Your task to perform on an android device: Empty the shopping cart on ebay.com. Search for "razer blade" on ebay.com, select the first entry, and add it to the cart. Image 0: 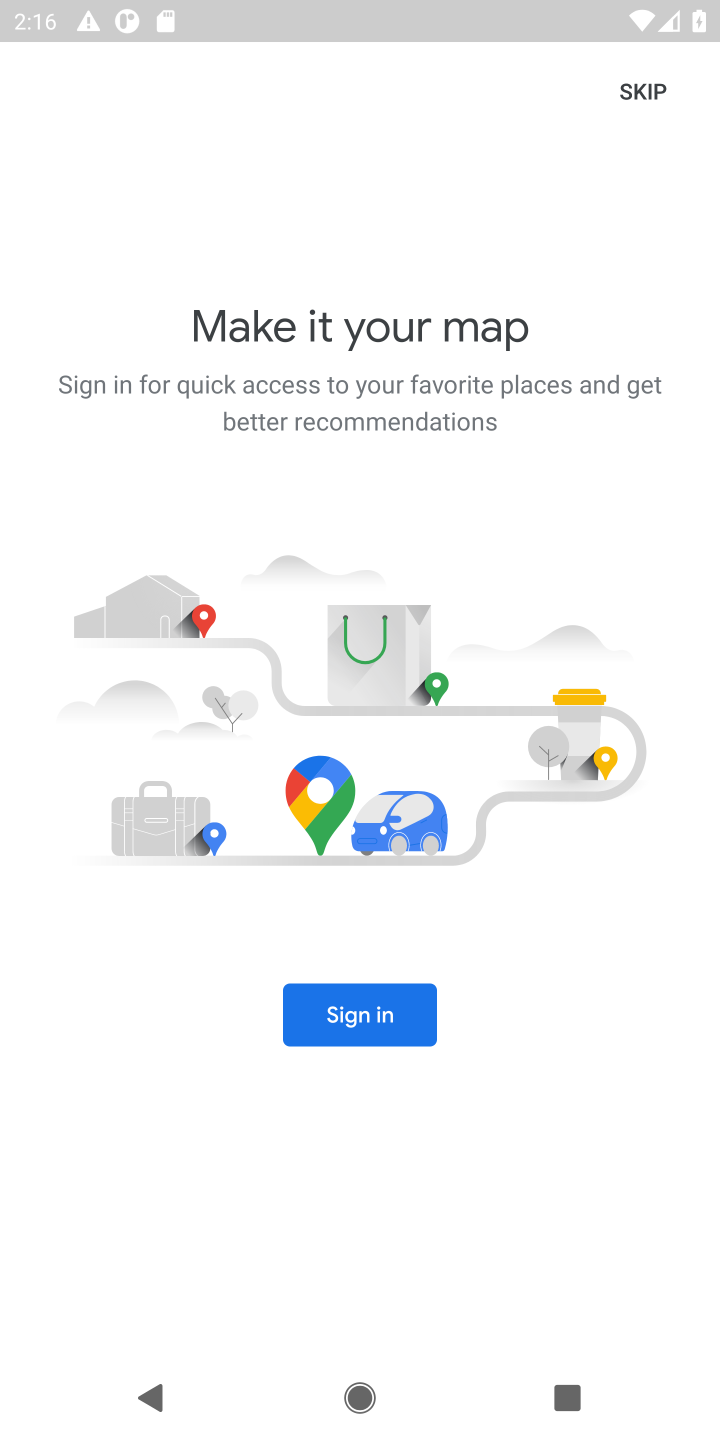
Step 0: press home button
Your task to perform on an android device: Empty the shopping cart on ebay.com. Search for "razer blade" on ebay.com, select the first entry, and add it to the cart. Image 1: 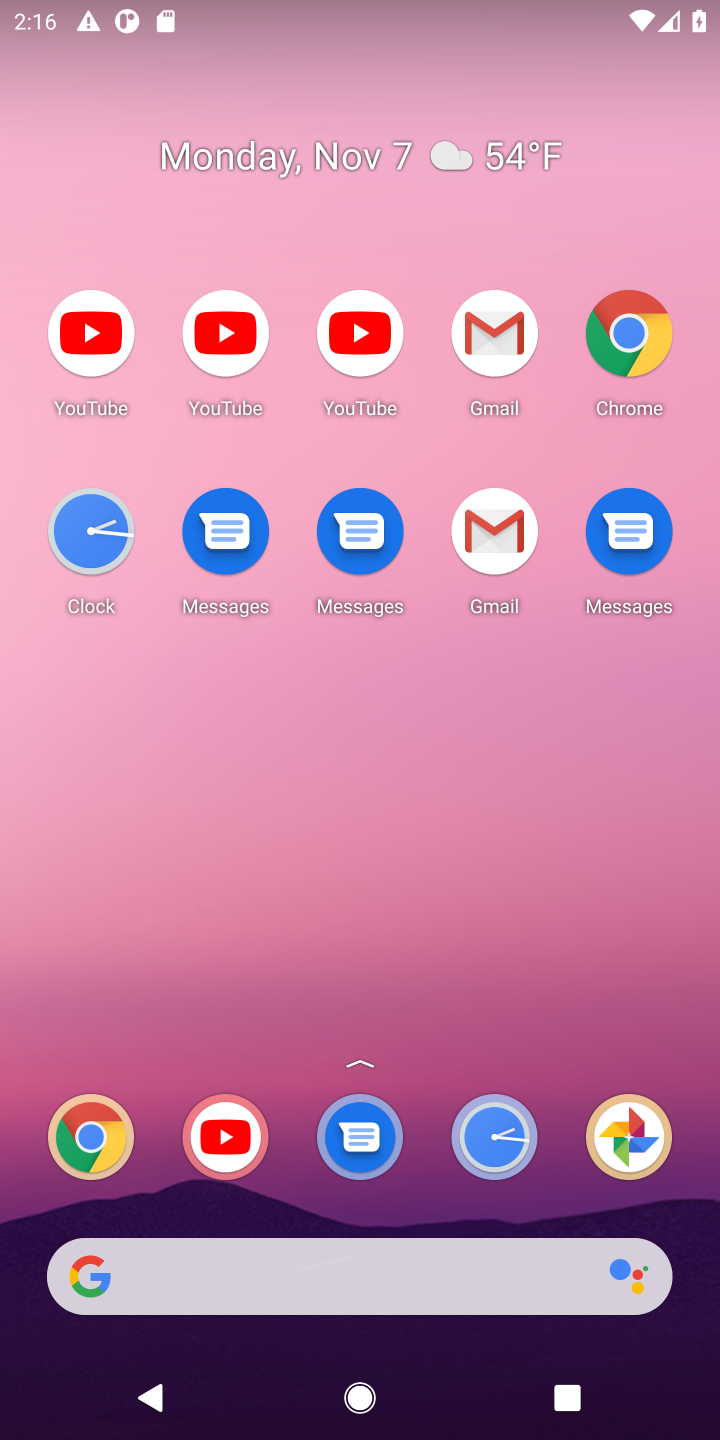
Step 1: drag from (417, 1169) to (369, 365)
Your task to perform on an android device: Empty the shopping cart on ebay.com. Search for "razer blade" on ebay.com, select the first entry, and add it to the cart. Image 2: 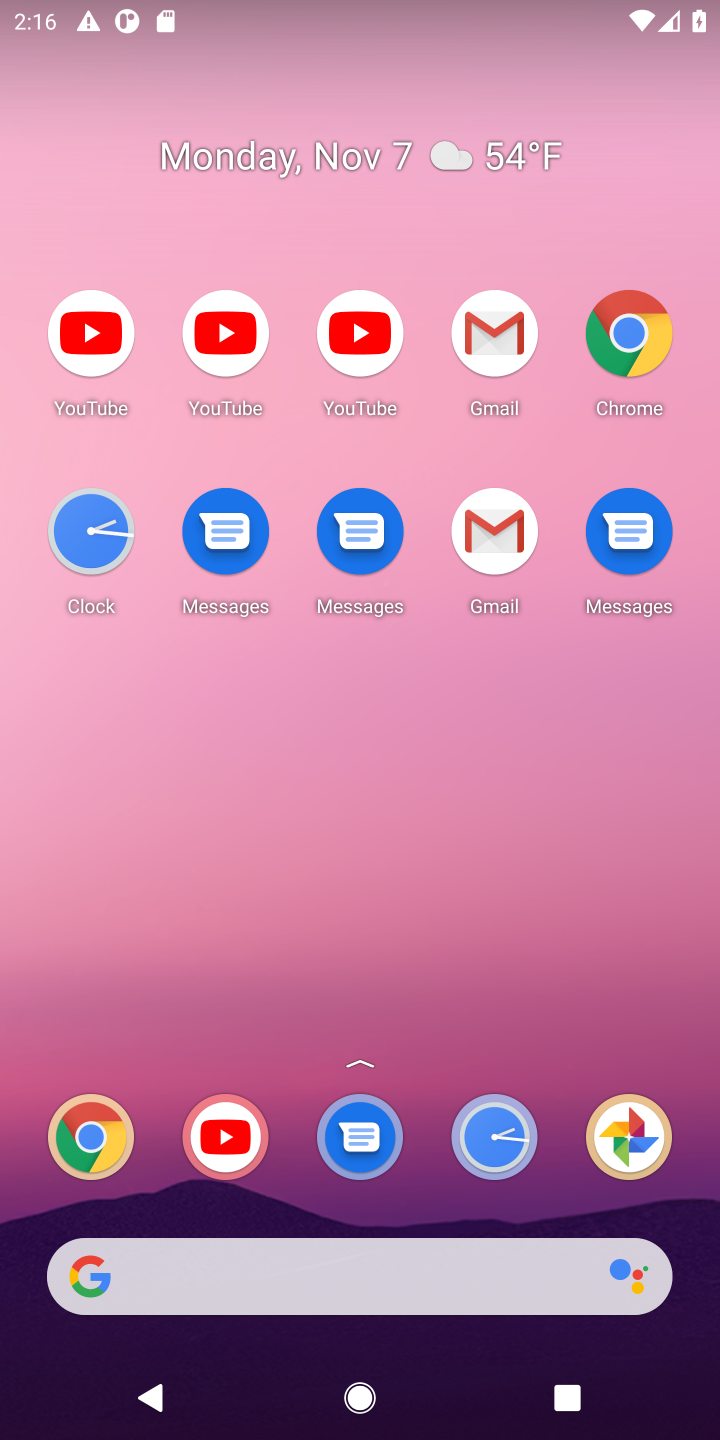
Step 2: drag from (416, 1211) to (394, 443)
Your task to perform on an android device: Empty the shopping cart on ebay.com. Search for "razer blade" on ebay.com, select the first entry, and add it to the cart. Image 3: 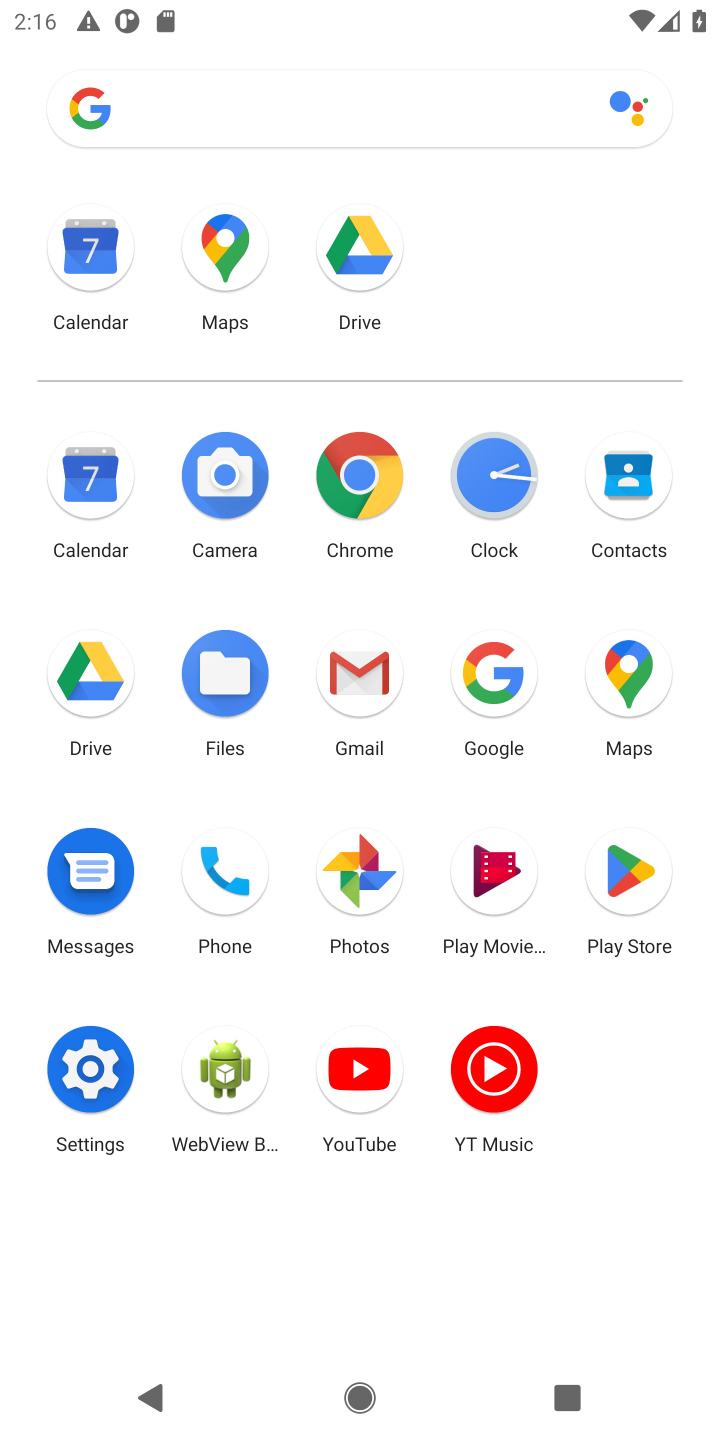
Step 3: click (365, 477)
Your task to perform on an android device: Empty the shopping cart on ebay.com. Search for "razer blade" on ebay.com, select the first entry, and add it to the cart. Image 4: 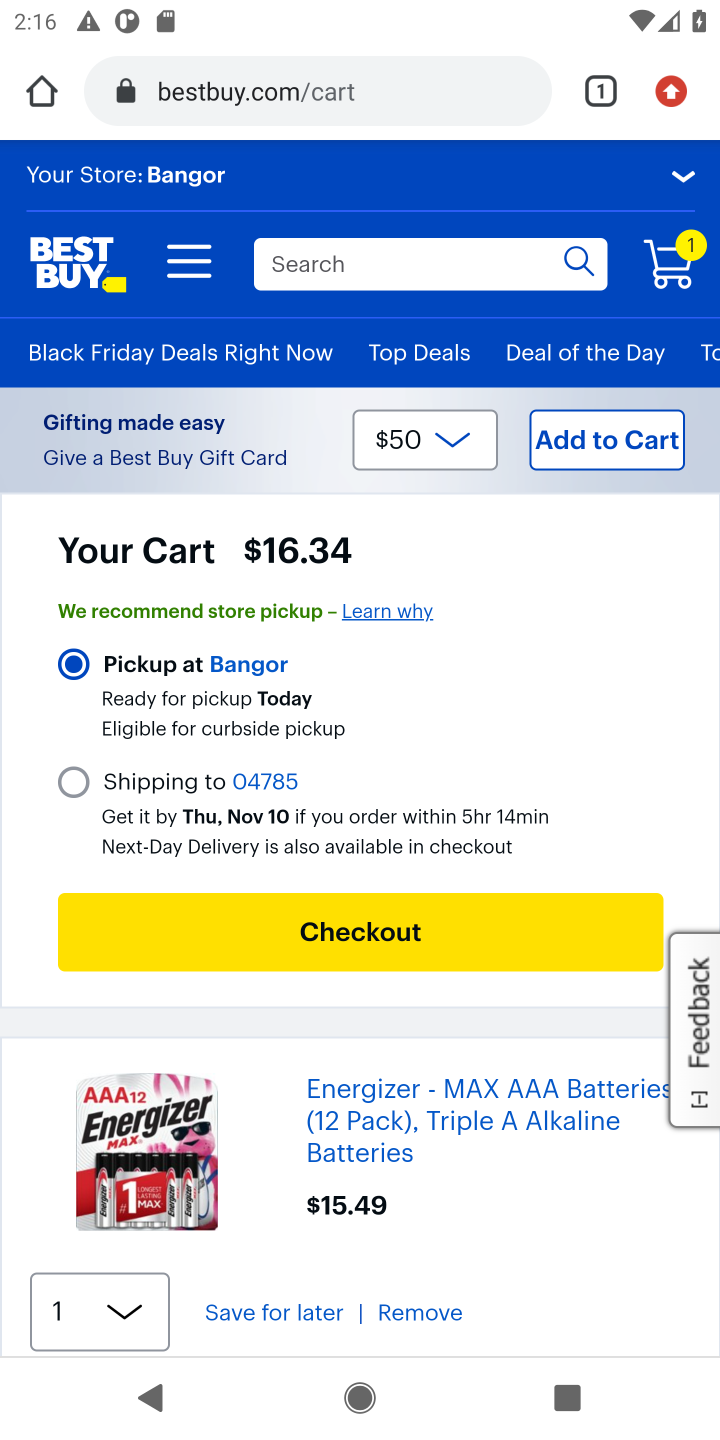
Step 4: click (379, 80)
Your task to perform on an android device: Empty the shopping cart on ebay.com. Search for "razer blade" on ebay.com, select the first entry, and add it to the cart. Image 5: 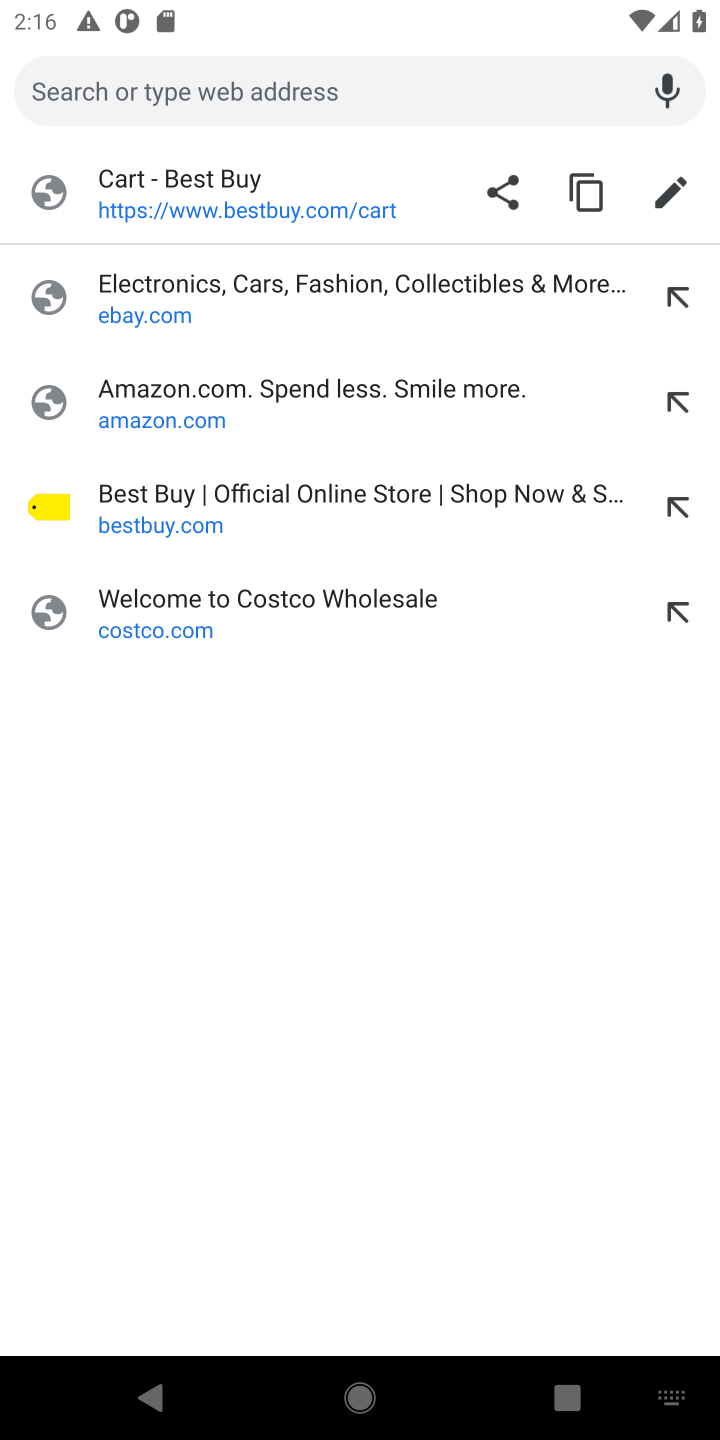
Step 5: type "ebay.com"
Your task to perform on an android device: Empty the shopping cart on ebay.com. Search for "razer blade" on ebay.com, select the first entry, and add it to the cart. Image 6: 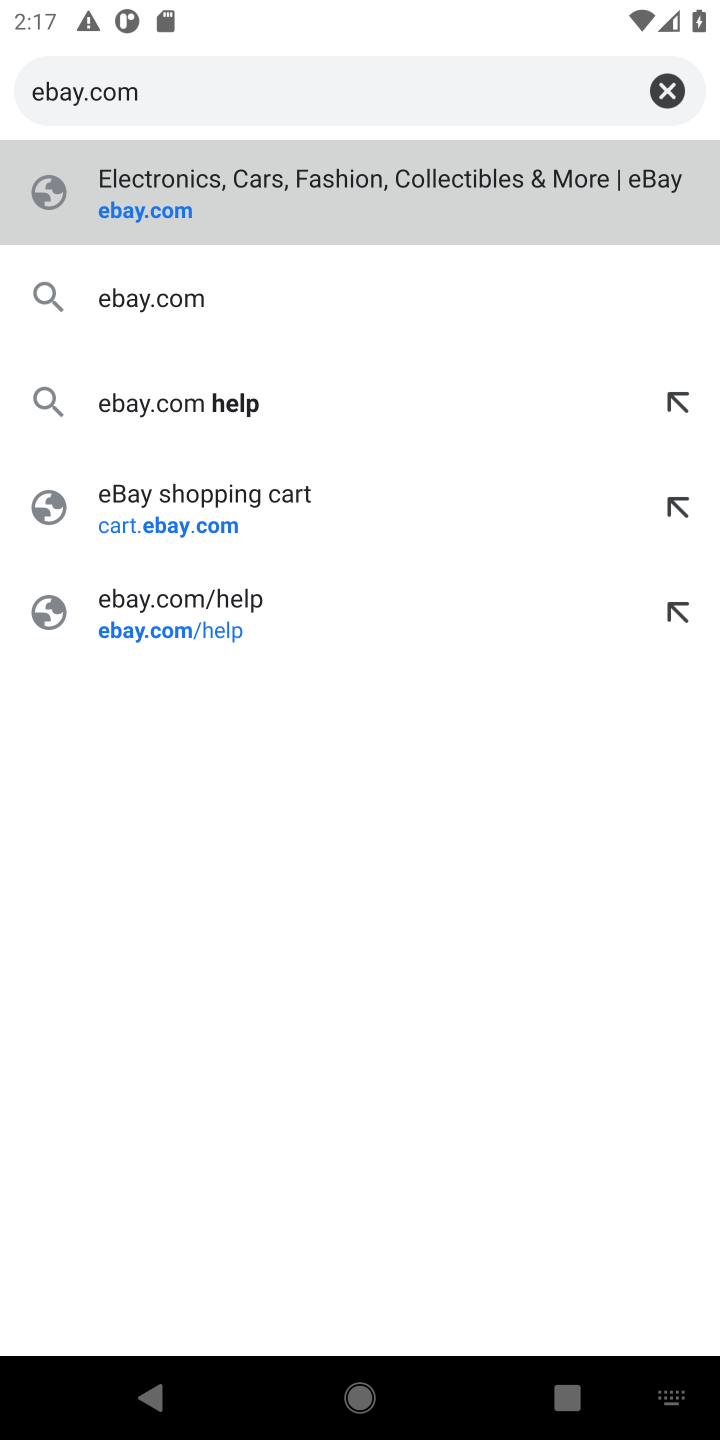
Step 6: press enter
Your task to perform on an android device: Empty the shopping cart on ebay.com. Search for "razer blade" on ebay.com, select the first entry, and add it to the cart. Image 7: 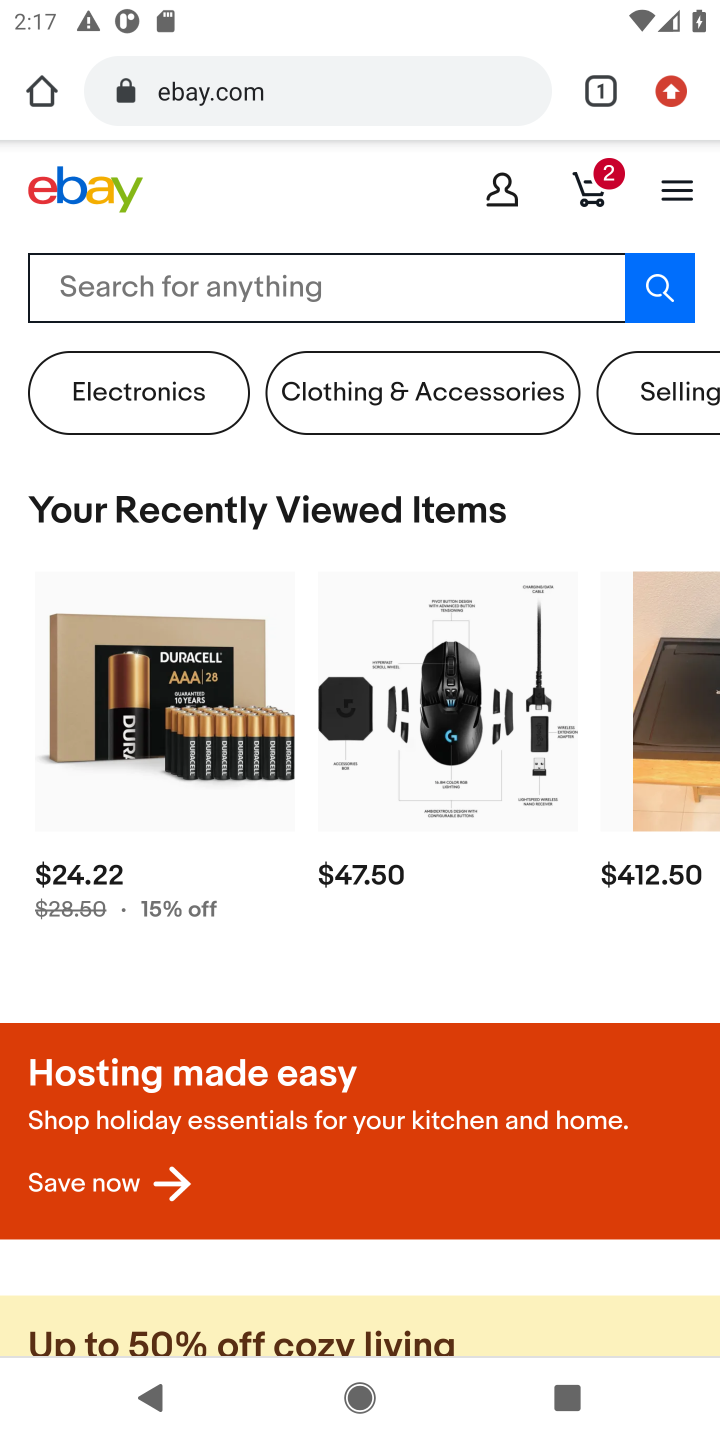
Step 7: click (611, 182)
Your task to perform on an android device: Empty the shopping cart on ebay.com. Search for "razer blade" on ebay.com, select the first entry, and add it to the cart. Image 8: 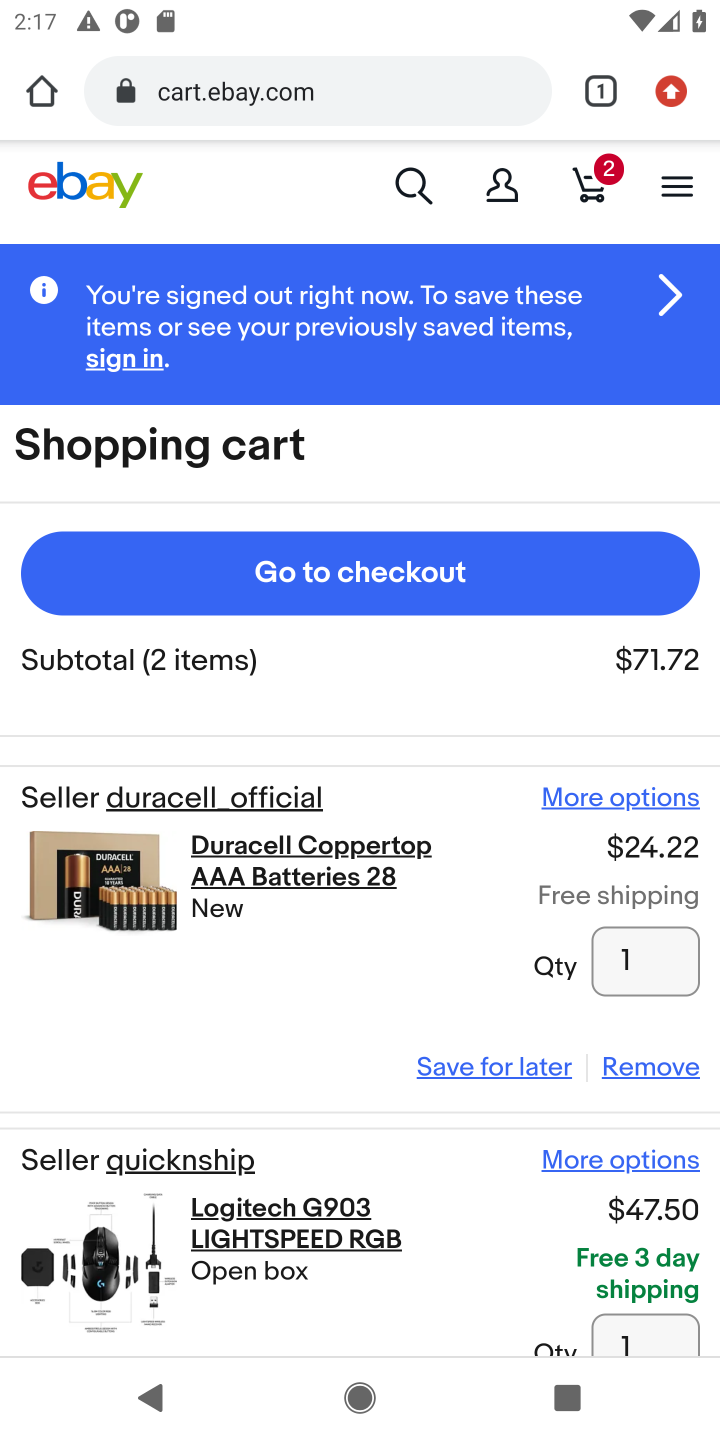
Step 8: click (628, 1064)
Your task to perform on an android device: Empty the shopping cart on ebay.com. Search for "razer blade" on ebay.com, select the first entry, and add it to the cart. Image 9: 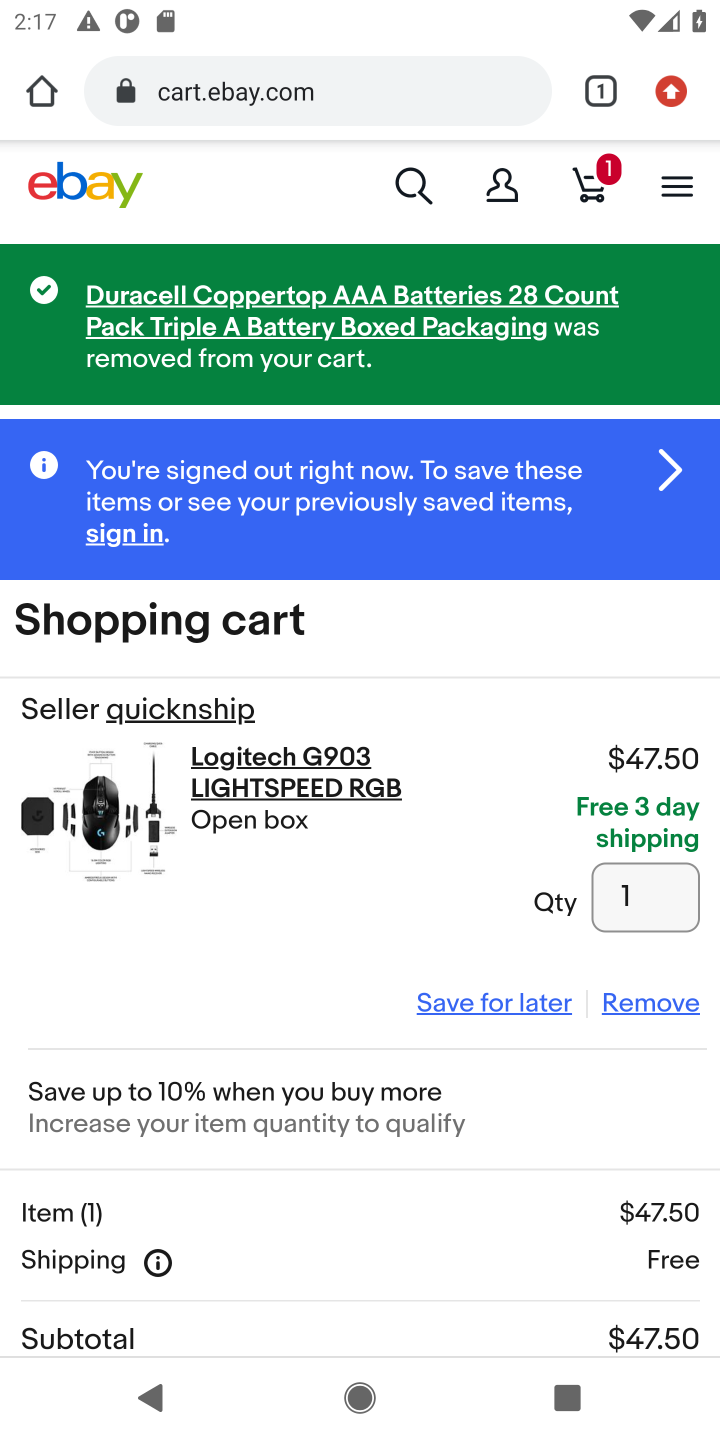
Step 9: click (664, 989)
Your task to perform on an android device: Empty the shopping cart on ebay.com. Search for "razer blade" on ebay.com, select the first entry, and add it to the cart. Image 10: 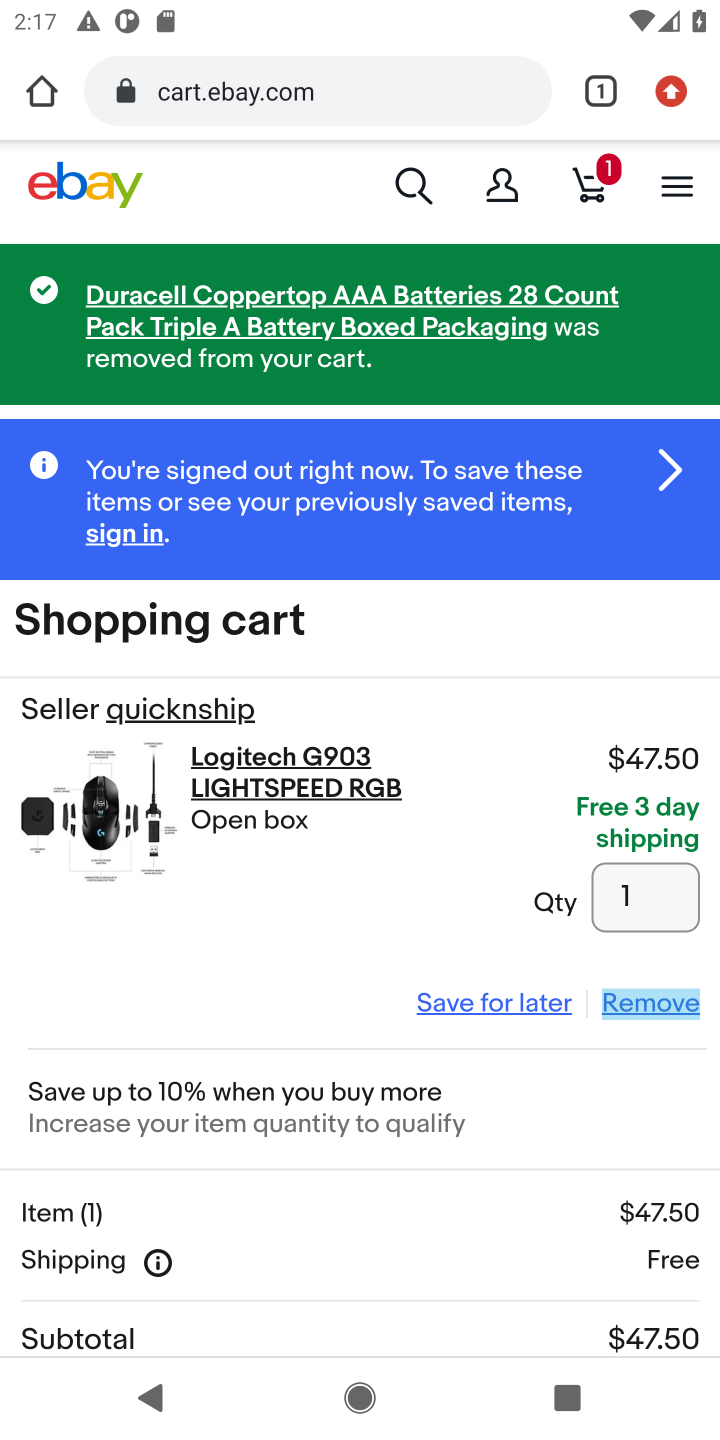
Step 10: click (677, 1004)
Your task to perform on an android device: Empty the shopping cart on ebay.com. Search for "razer blade" on ebay.com, select the first entry, and add it to the cart. Image 11: 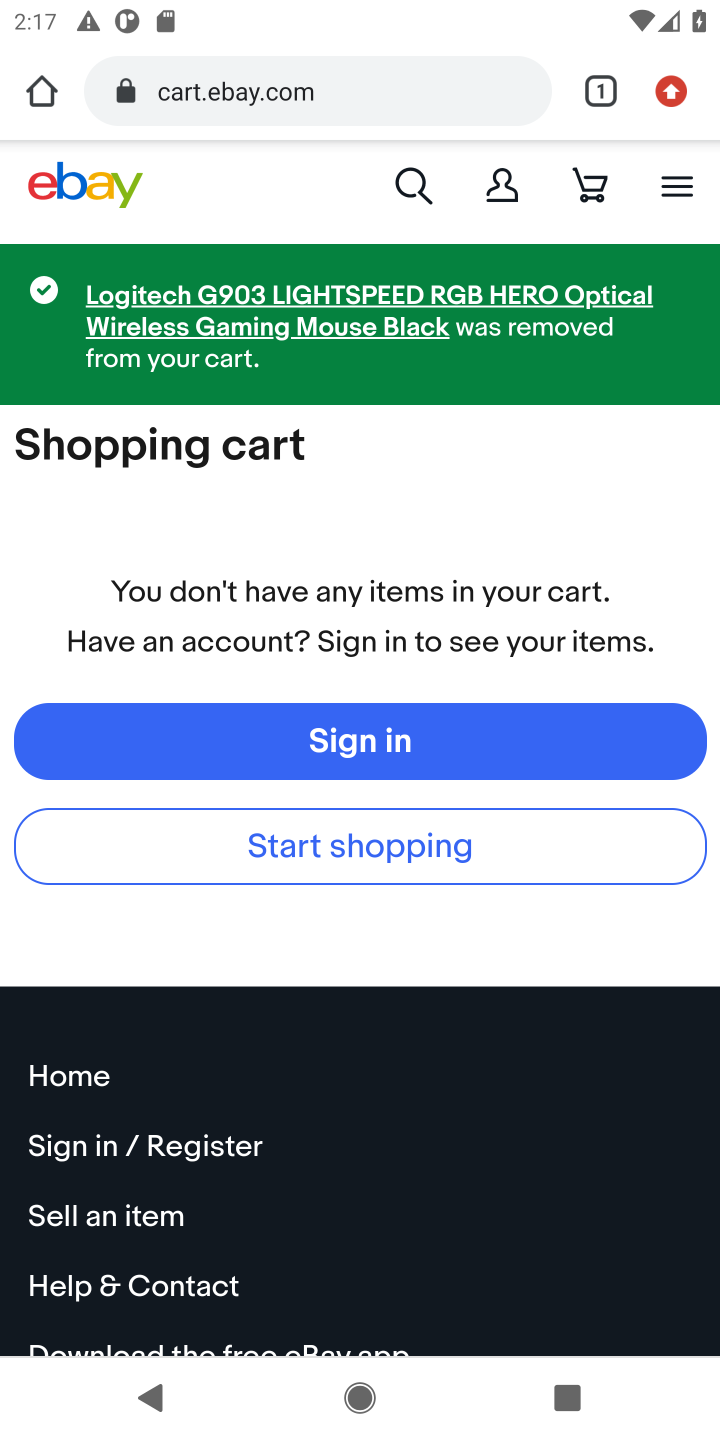
Step 11: click (411, 184)
Your task to perform on an android device: Empty the shopping cart on ebay.com. Search for "razer blade" on ebay.com, select the first entry, and add it to the cart. Image 12: 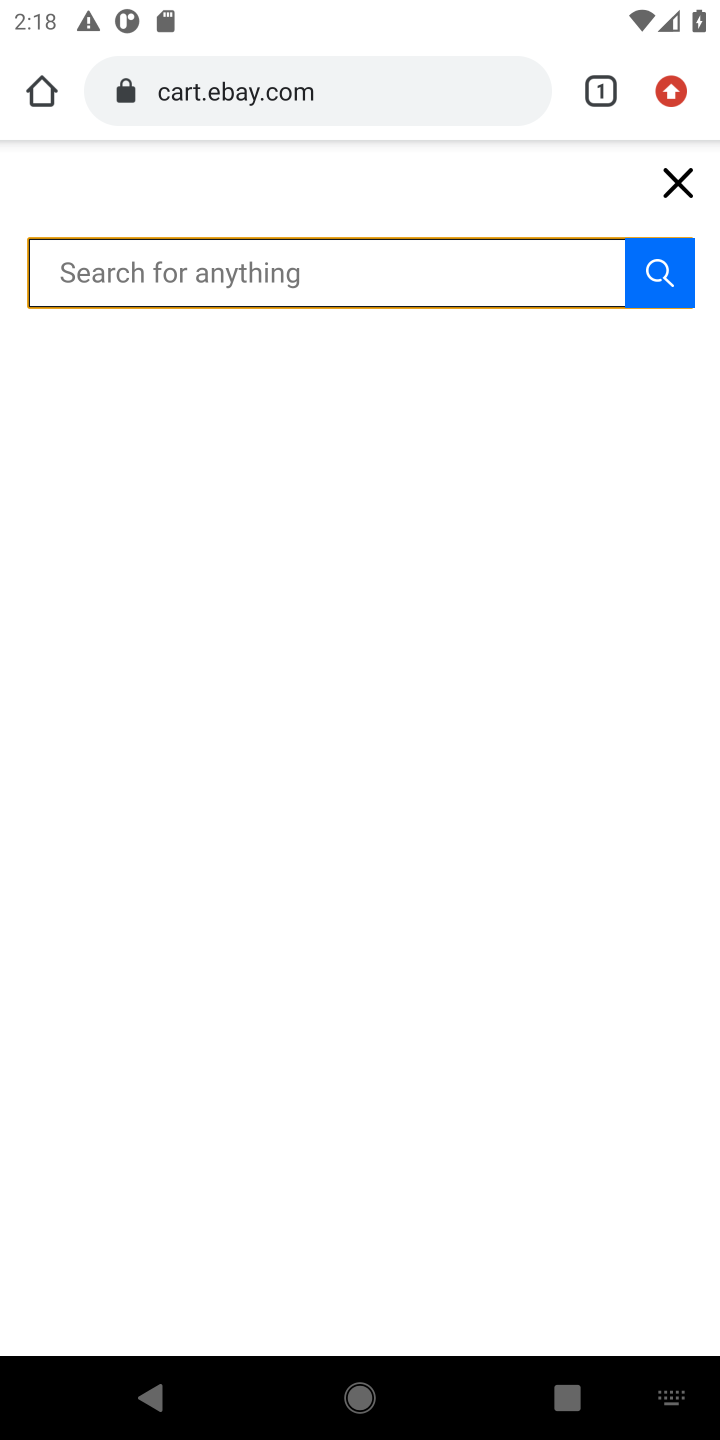
Step 12: type "razer blade"
Your task to perform on an android device: Empty the shopping cart on ebay.com. Search for "razer blade" on ebay.com, select the first entry, and add it to the cart. Image 13: 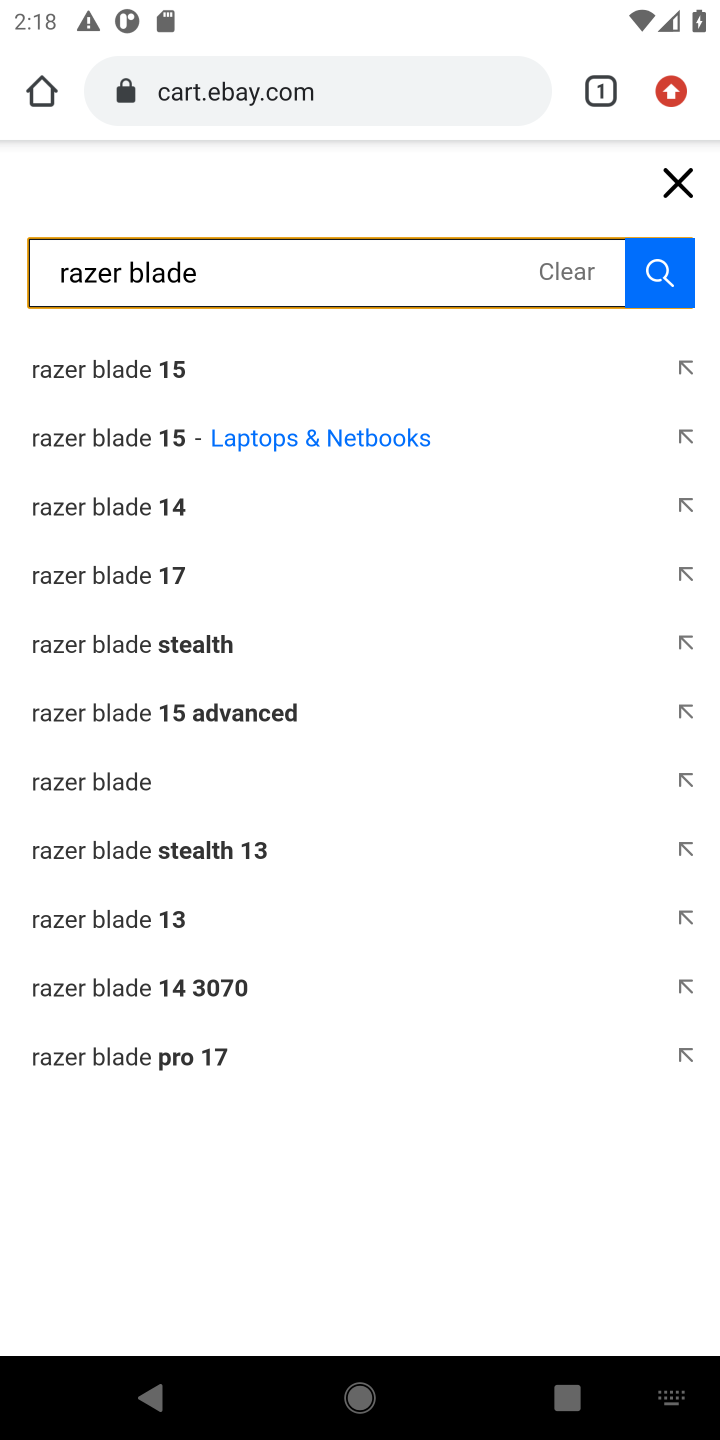
Step 13: click (659, 278)
Your task to perform on an android device: Empty the shopping cart on ebay.com. Search for "razer blade" on ebay.com, select the first entry, and add it to the cart. Image 14: 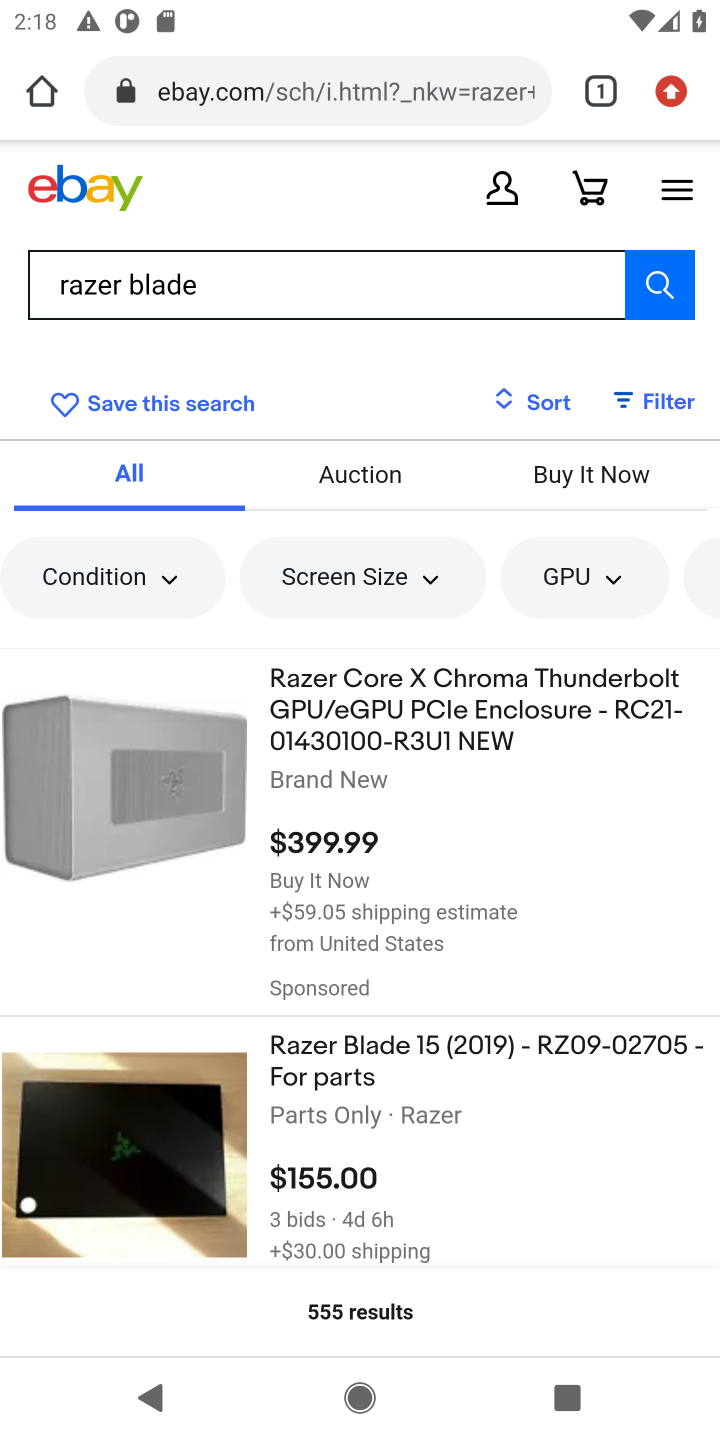
Step 14: drag from (441, 1199) to (453, 824)
Your task to perform on an android device: Empty the shopping cart on ebay.com. Search for "razer blade" on ebay.com, select the first entry, and add it to the cart. Image 15: 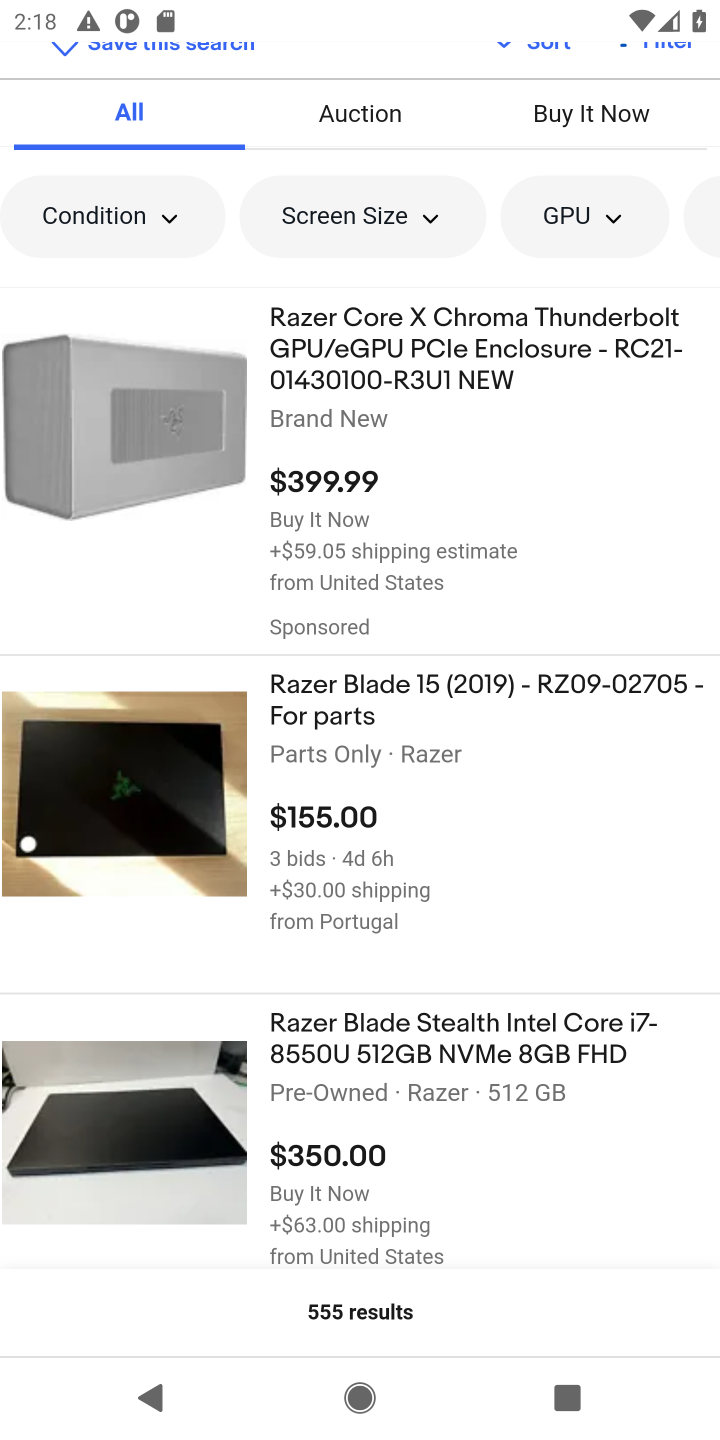
Step 15: click (194, 766)
Your task to perform on an android device: Empty the shopping cart on ebay.com. Search for "razer blade" on ebay.com, select the first entry, and add it to the cart. Image 16: 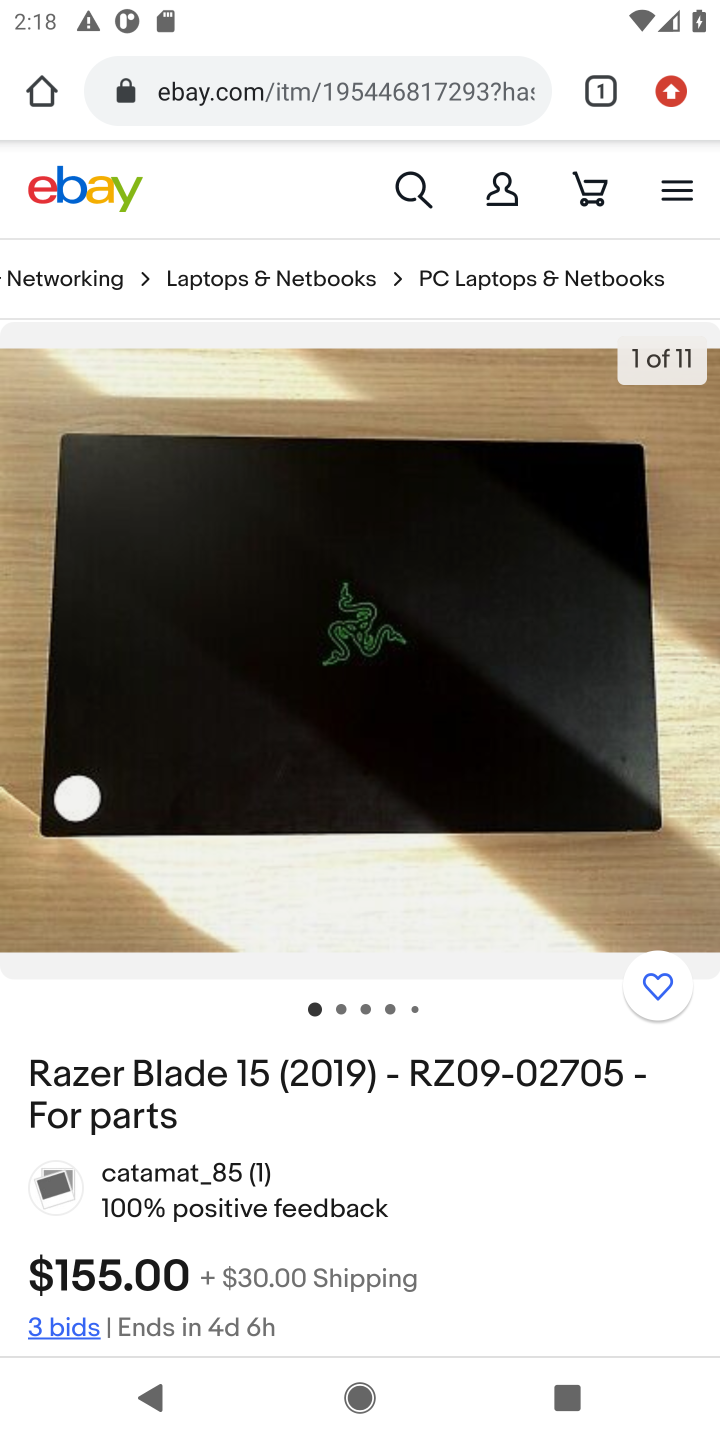
Step 16: task complete